Your task to perform on an android device: Go to ESPN.com Image 0: 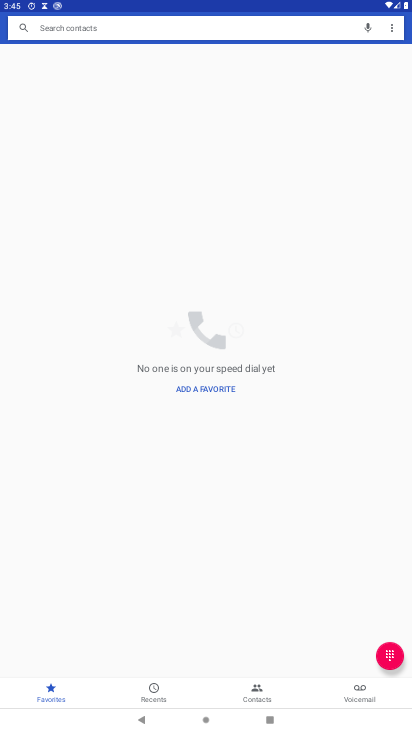
Step 0: click (63, 391)
Your task to perform on an android device: Go to ESPN.com Image 1: 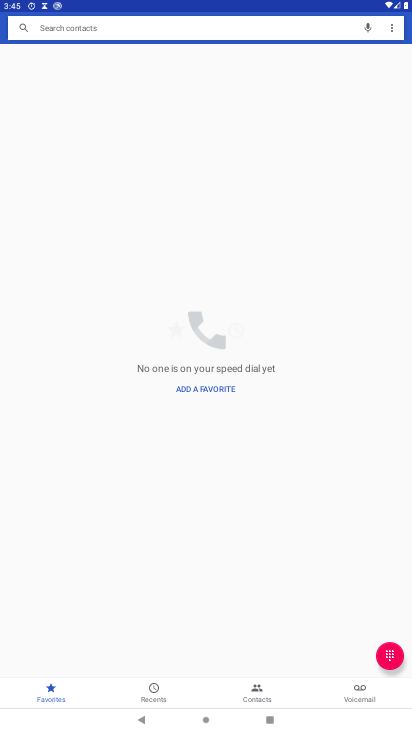
Step 1: press home button
Your task to perform on an android device: Go to ESPN.com Image 2: 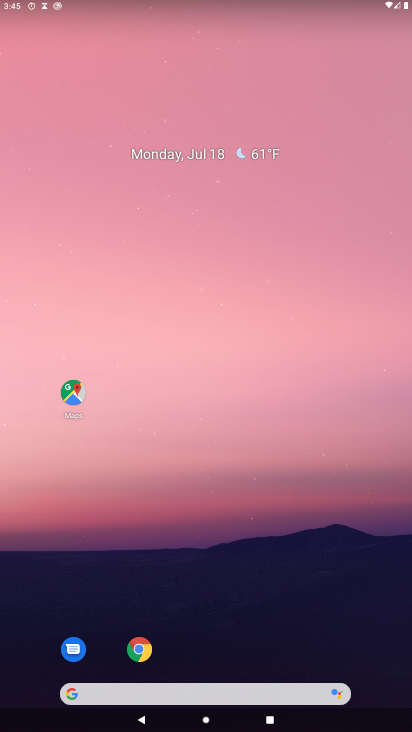
Step 2: click (144, 686)
Your task to perform on an android device: Go to ESPN.com Image 3: 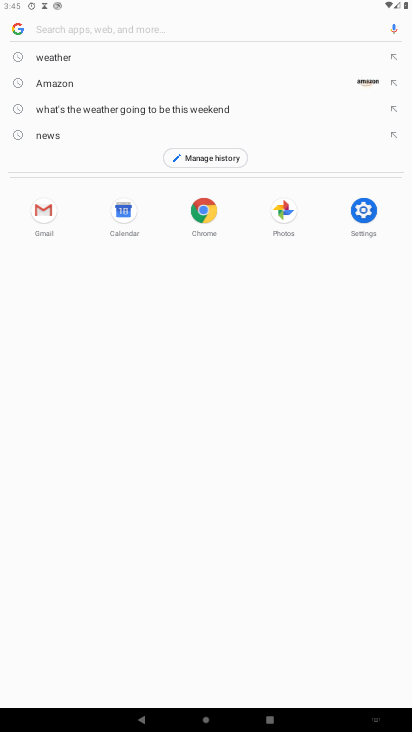
Step 3: type "ESPN.com"
Your task to perform on an android device: Go to ESPN.com Image 4: 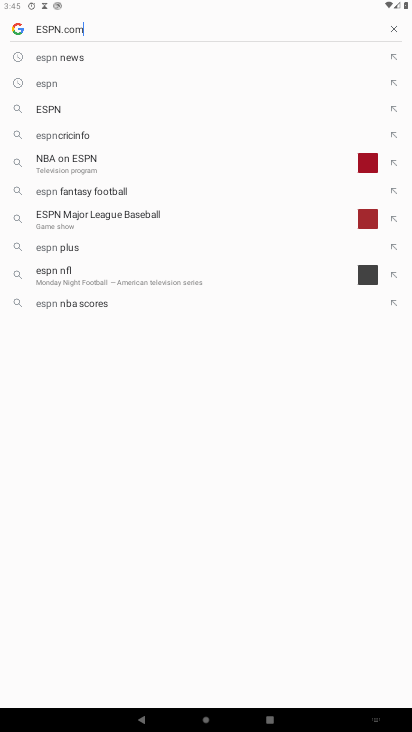
Step 4: type ""
Your task to perform on an android device: Go to ESPN.com Image 5: 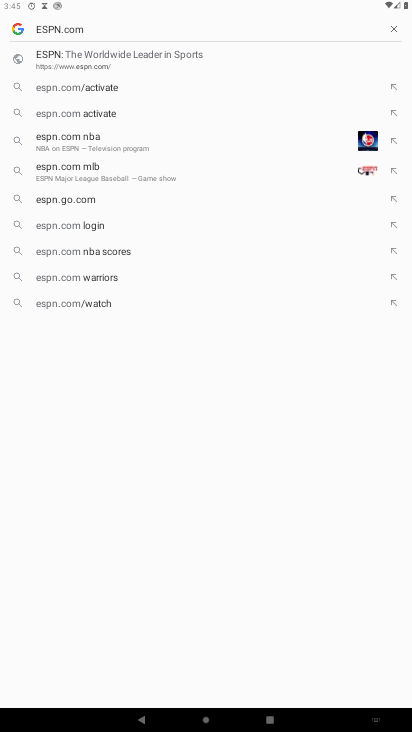
Step 5: type ""
Your task to perform on an android device: Go to ESPN.com Image 6: 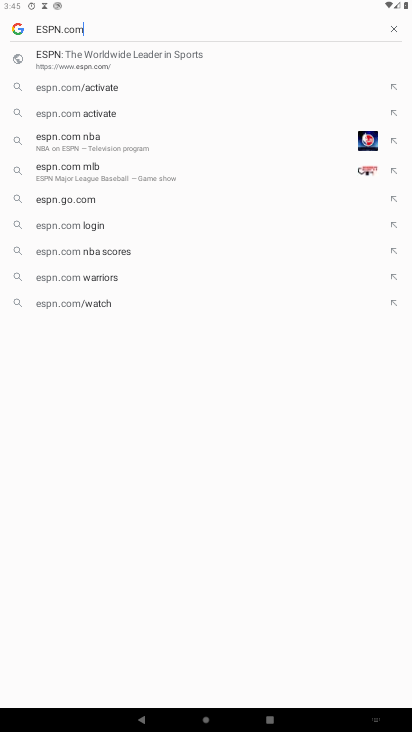
Step 6: task complete